Your task to perform on an android device: check data usage Image 0: 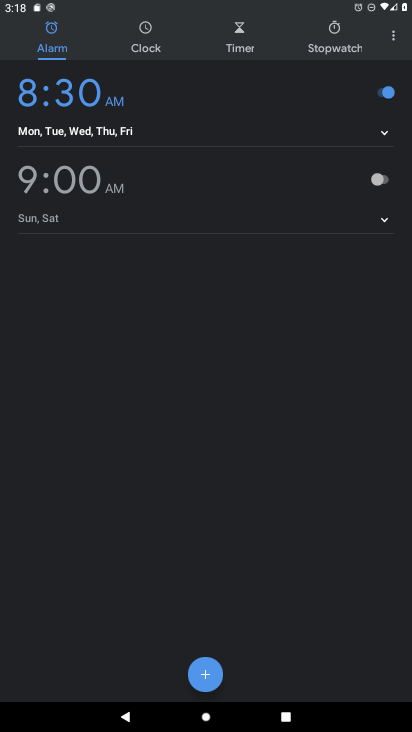
Step 0: press home button
Your task to perform on an android device: check data usage Image 1: 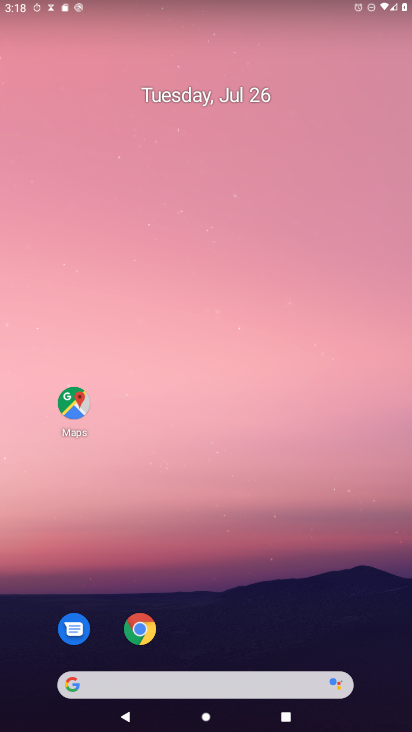
Step 1: drag from (164, 678) to (255, 31)
Your task to perform on an android device: check data usage Image 2: 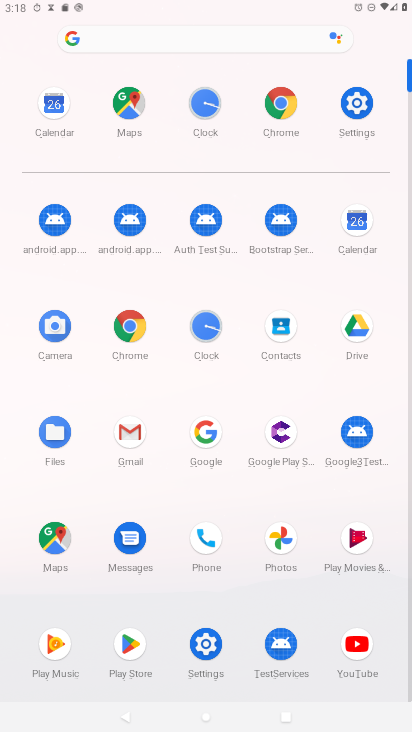
Step 2: click (355, 108)
Your task to perform on an android device: check data usage Image 3: 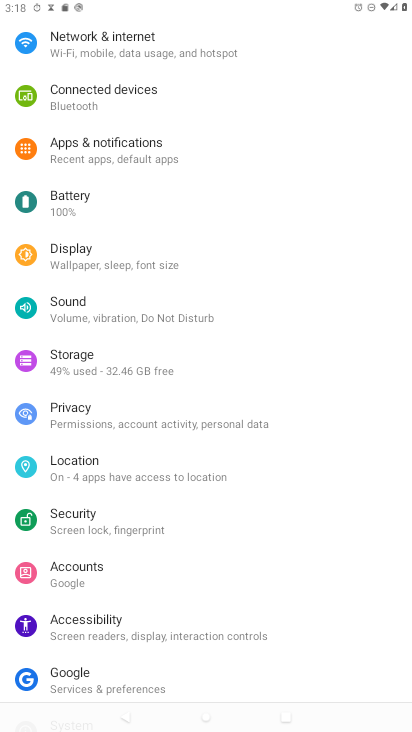
Step 3: click (142, 57)
Your task to perform on an android device: check data usage Image 4: 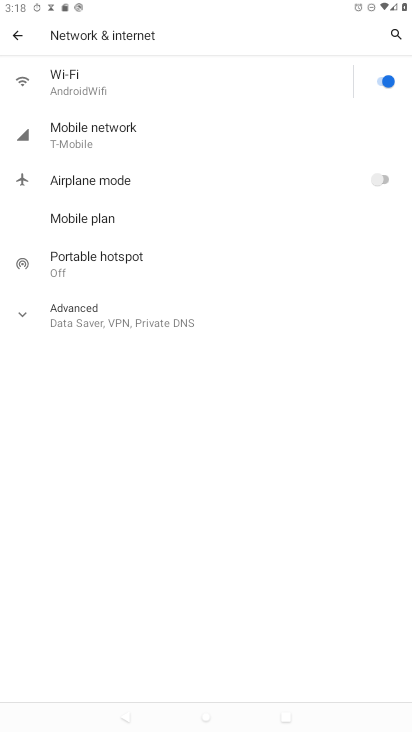
Step 4: click (114, 126)
Your task to perform on an android device: check data usage Image 5: 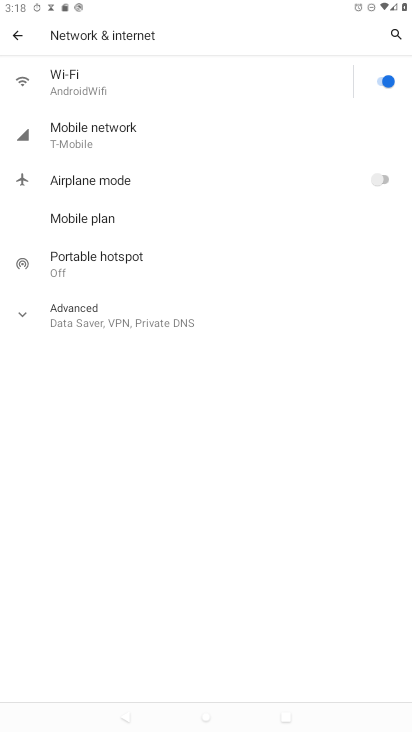
Step 5: task complete